Your task to perform on an android device: Show me popular videos on Youtube Image 0: 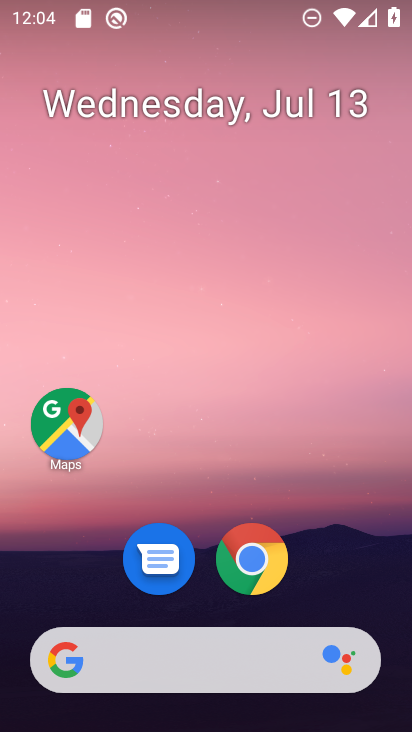
Step 0: drag from (242, 601) to (320, 115)
Your task to perform on an android device: Show me popular videos on Youtube Image 1: 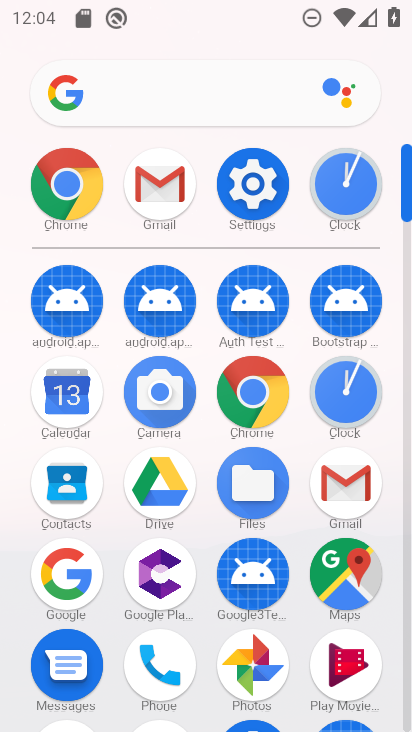
Step 1: drag from (241, 483) to (242, 129)
Your task to perform on an android device: Show me popular videos on Youtube Image 2: 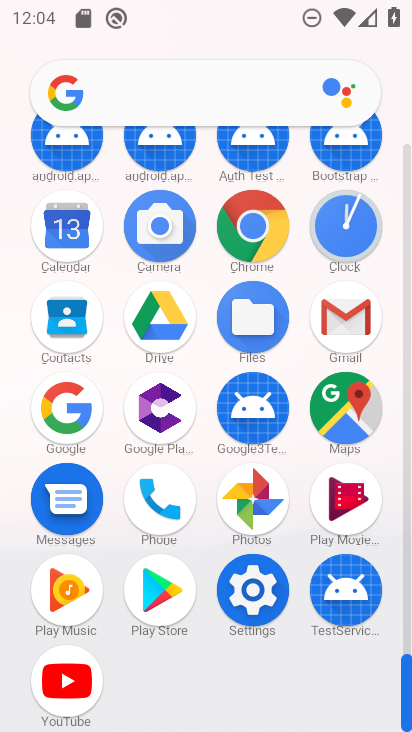
Step 2: click (82, 663)
Your task to perform on an android device: Show me popular videos on Youtube Image 3: 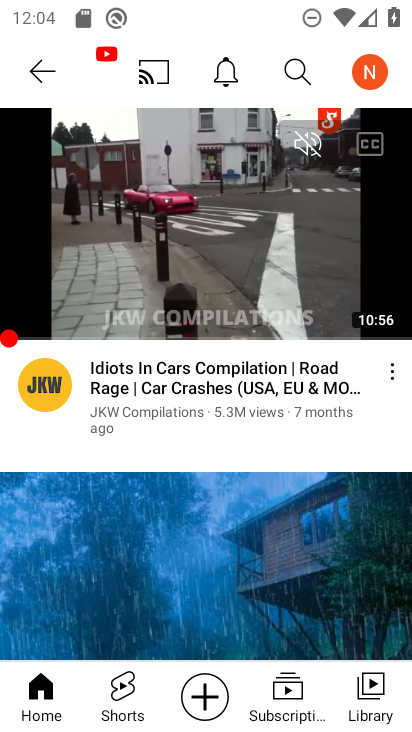
Step 3: task complete